Your task to perform on an android device: install app "Mercado Libre" Image 0: 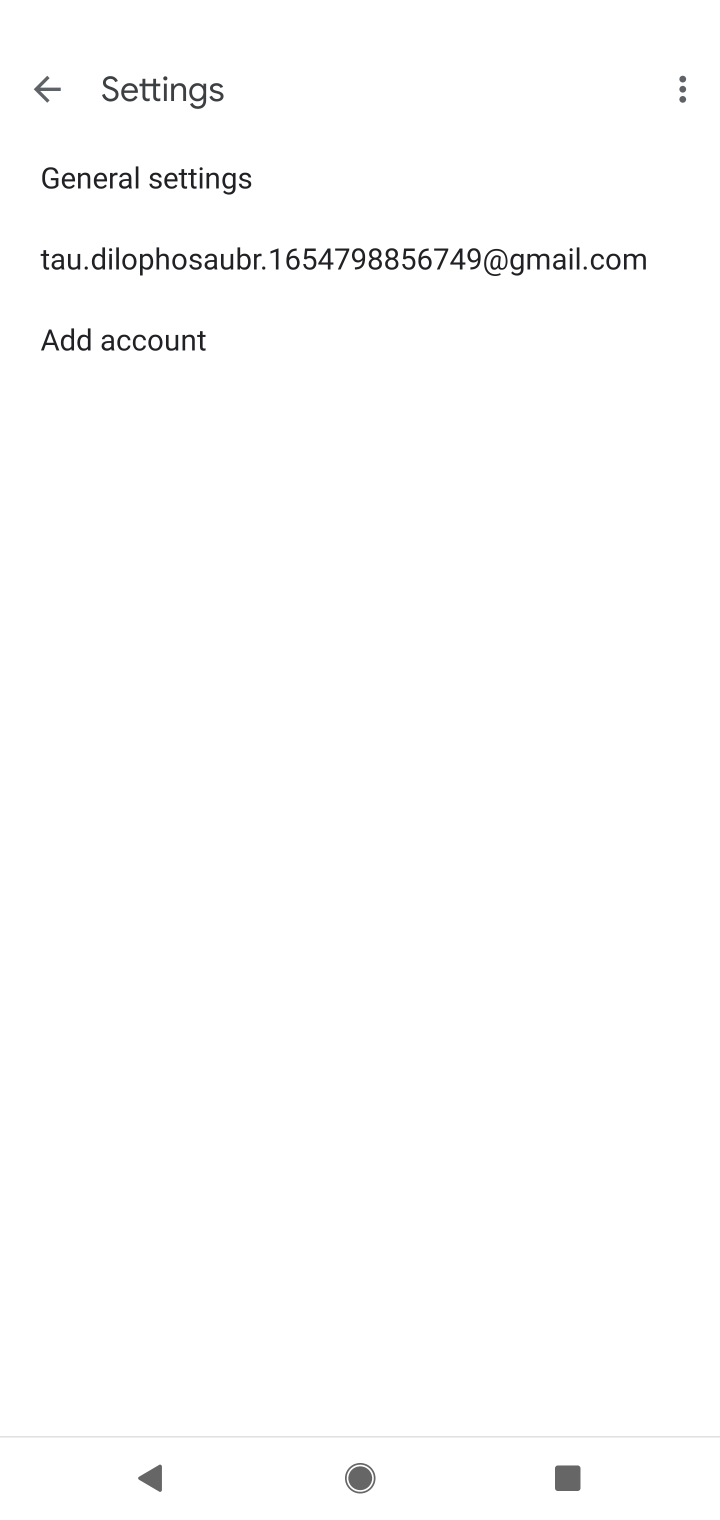
Step 0: press home button
Your task to perform on an android device: install app "Mercado Libre" Image 1: 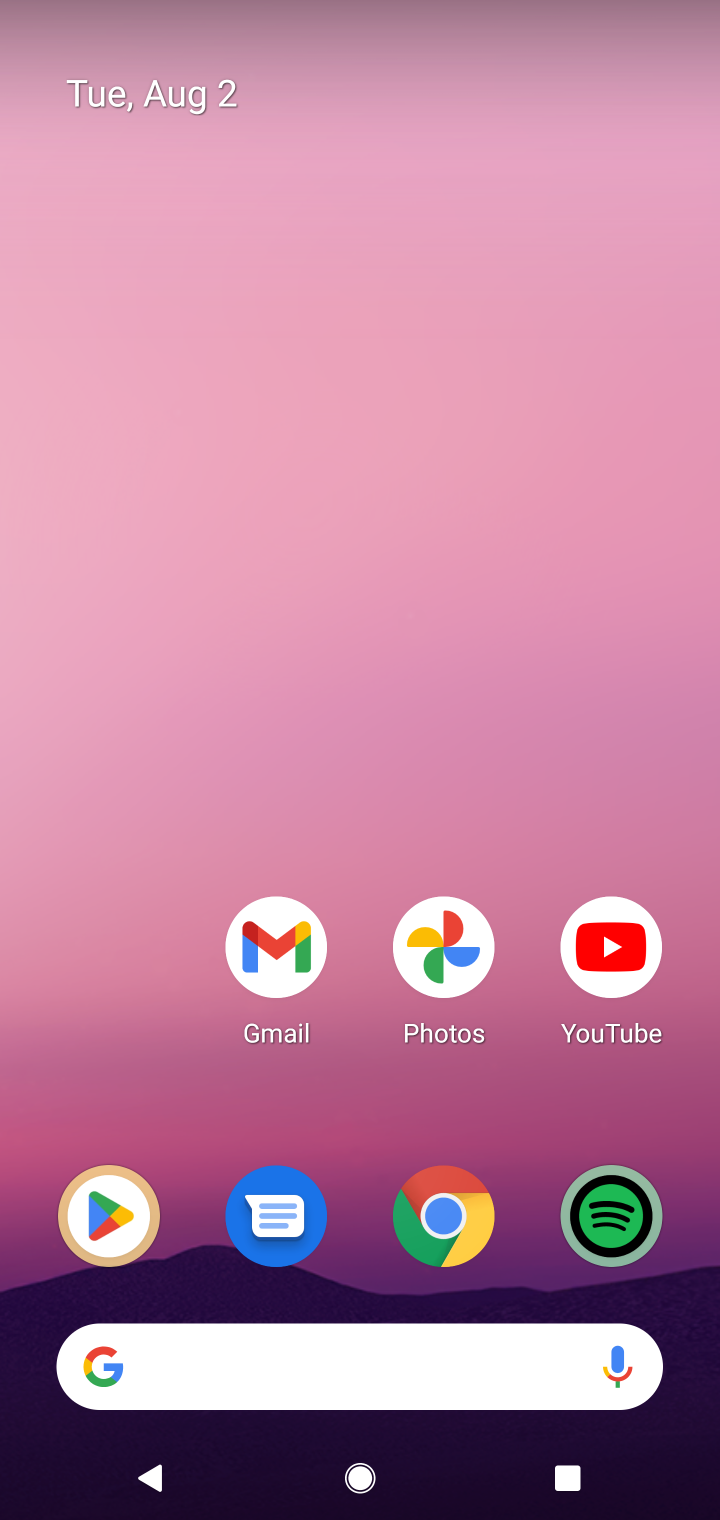
Step 1: click (77, 1218)
Your task to perform on an android device: install app "Mercado Libre" Image 2: 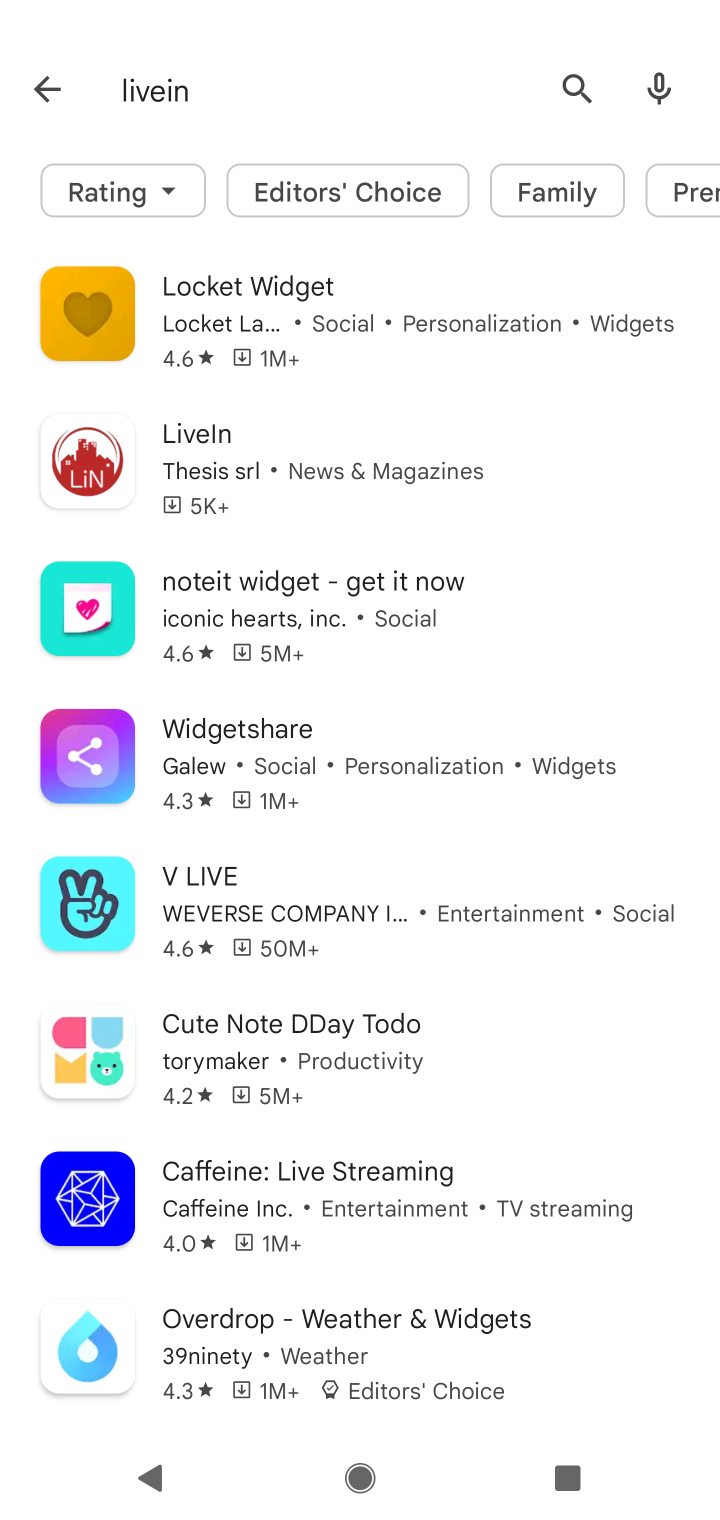
Step 2: click (563, 119)
Your task to perform on an android device: install app "Mercado Libre" Image 3: 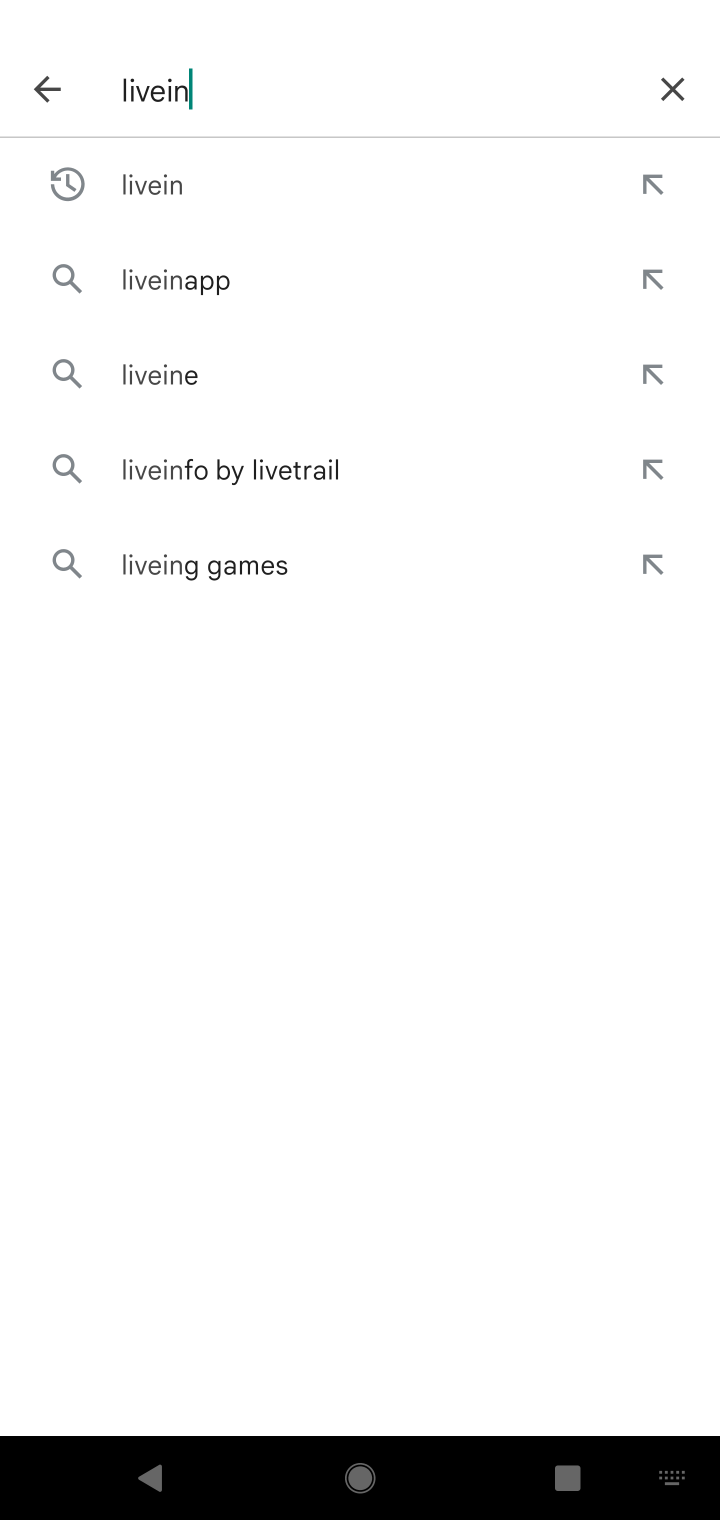
Step 3: click (692, 95)
Your task to perform on an android device: install app "Mercado Libre" Image 4: 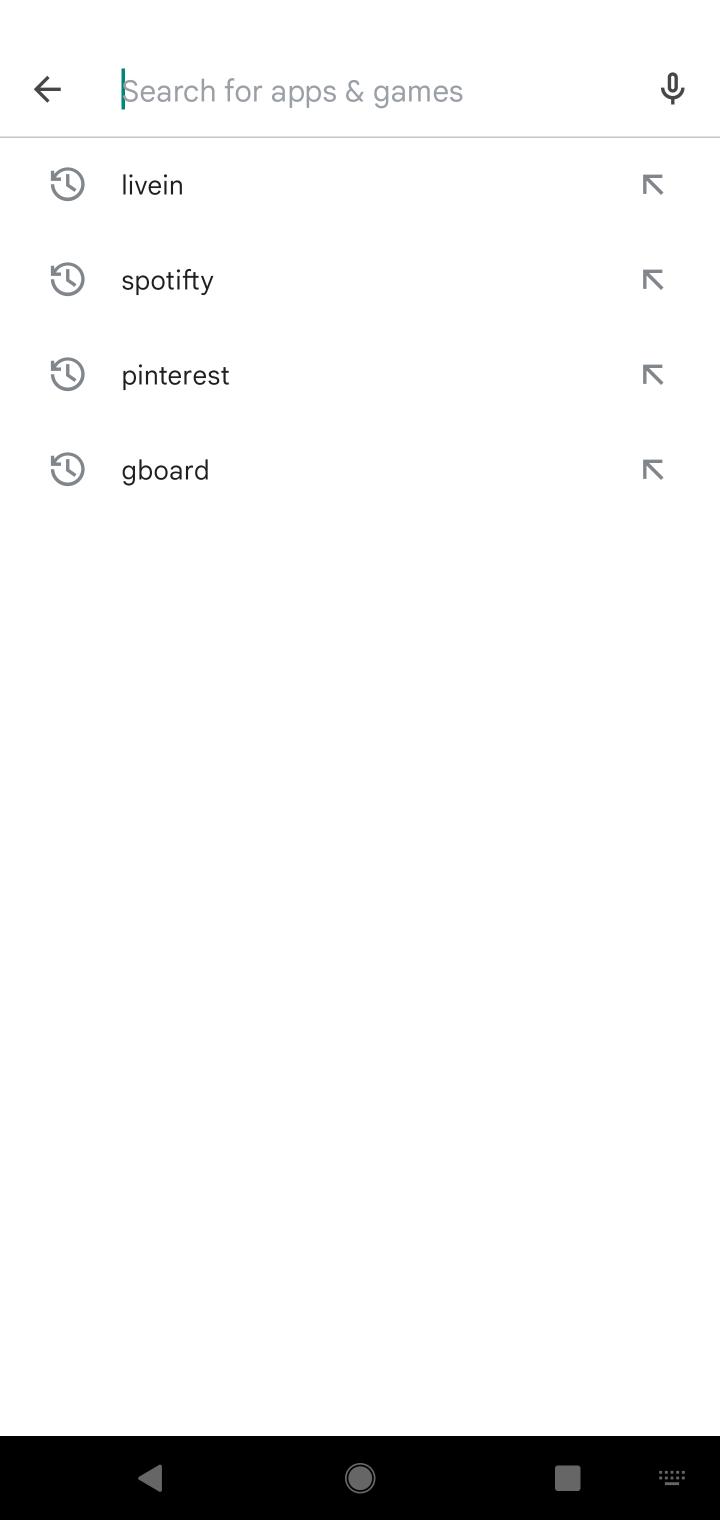
Step 4: type "mercado liber"
Your task to perform on an android device: install app "Mercado Libre" Image 5: 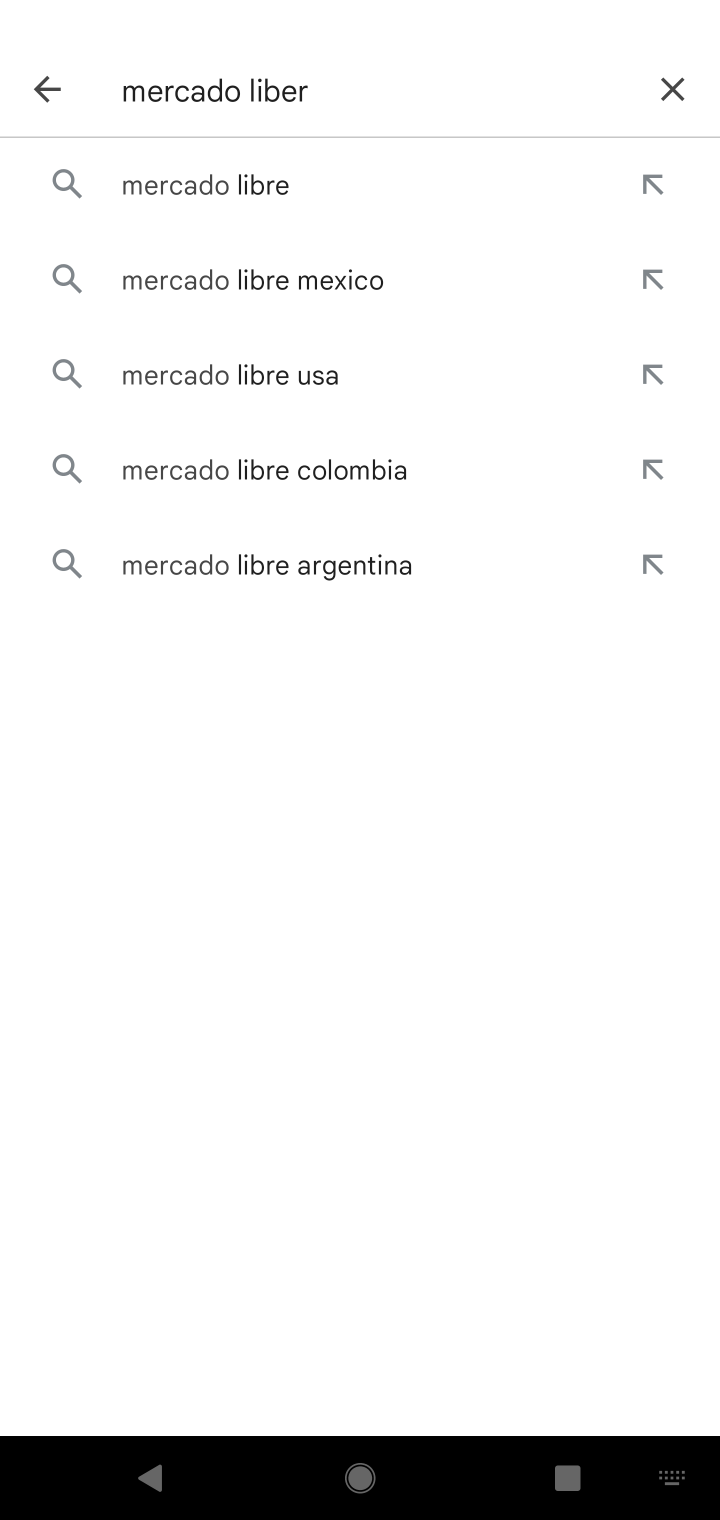
Step 5: click (224, 169)
Your task to perform on an android device: install app "Mercado Libre" Image 6: 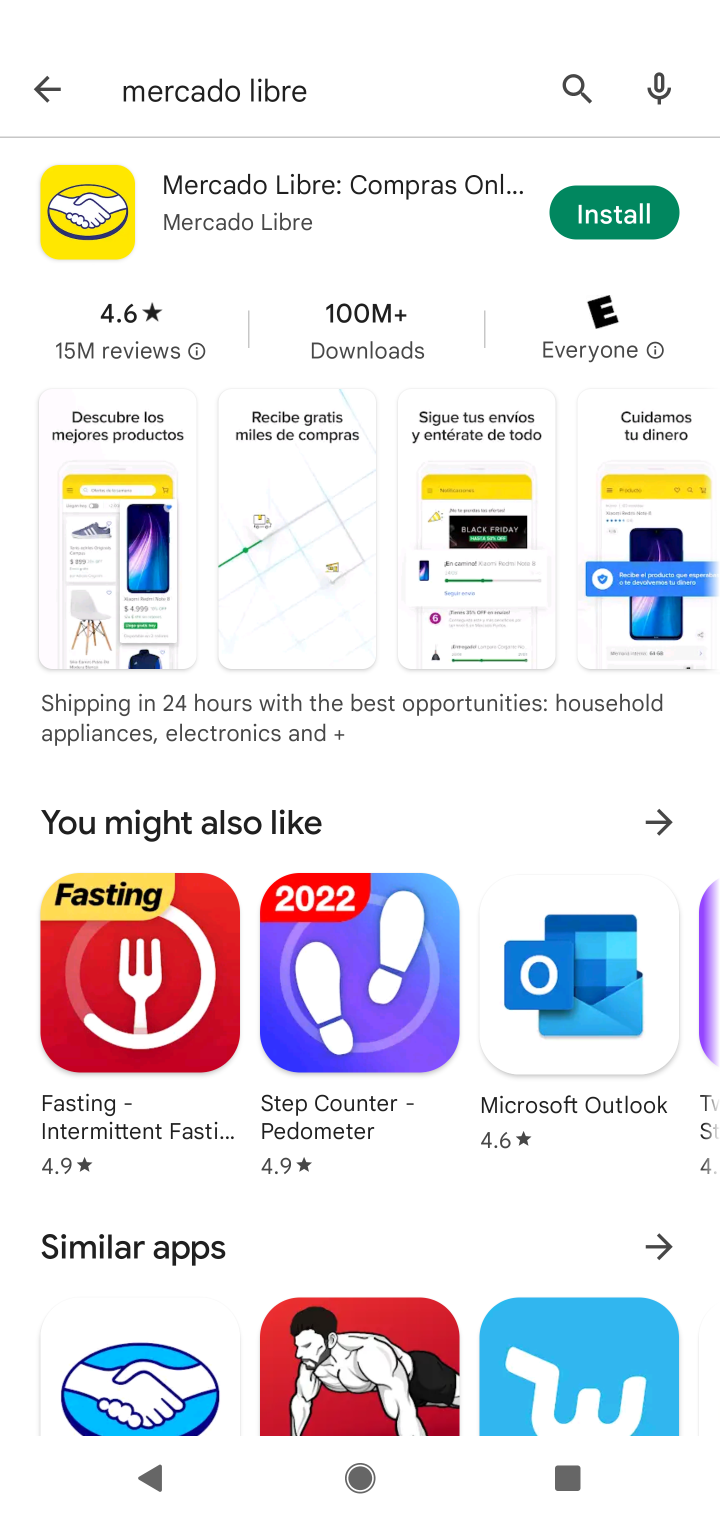
Step 6: click (577, 198)
Your task to perform on an android device: install app "Mercado Libre" Image 7: 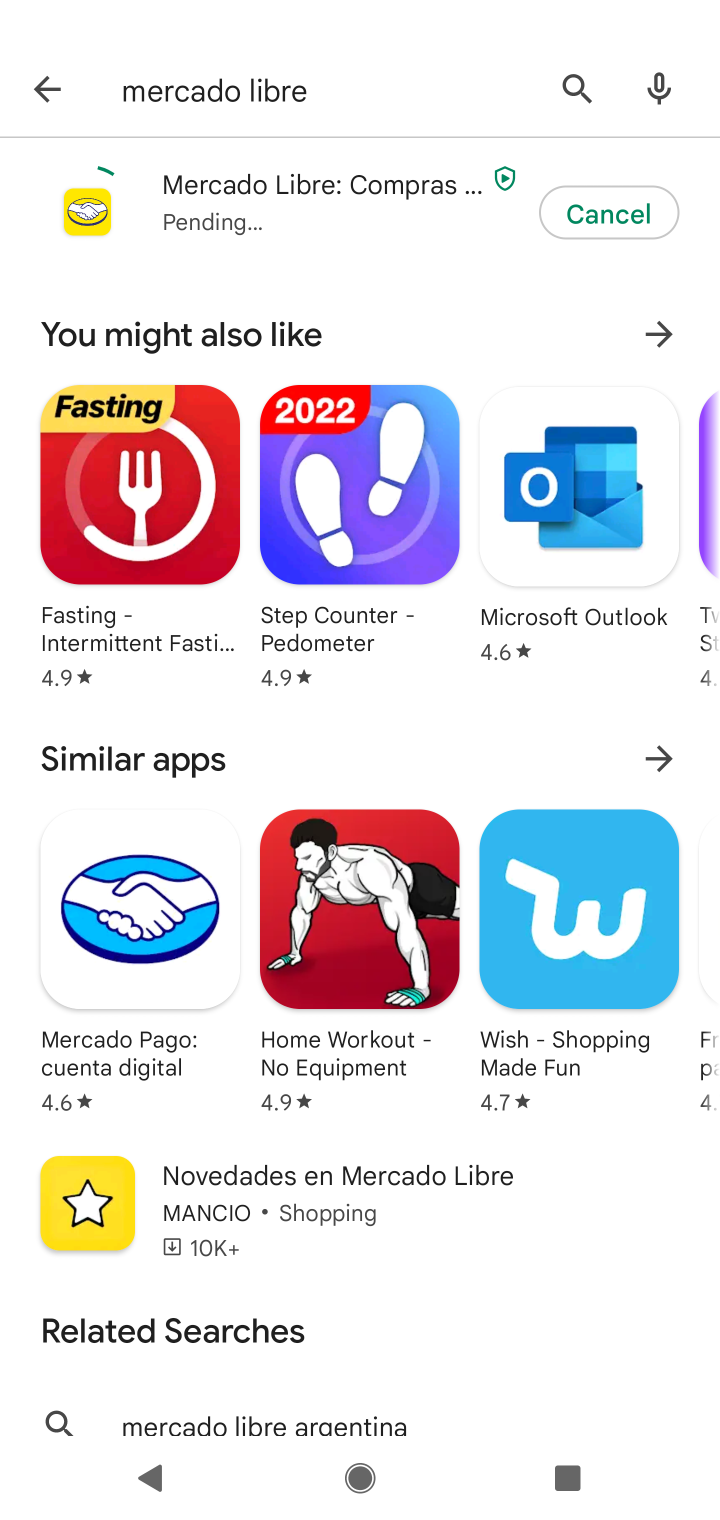
Step 7: task complete